Your task to perform on an android device: set default search engine in the chrome app Image 0: 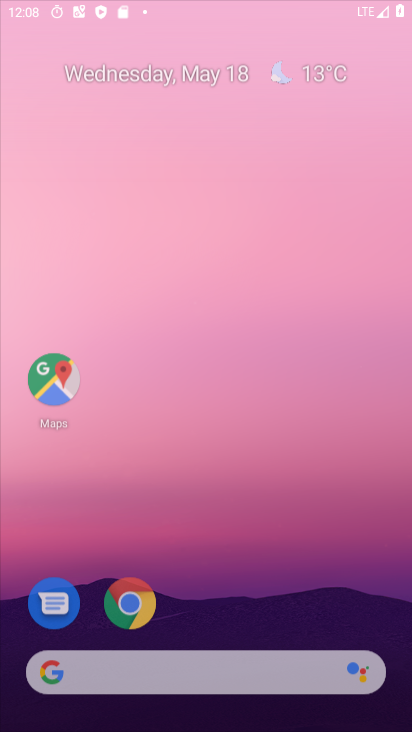
Step 0: press home button
Your task to perform on an android device: set default search engine in the chrome app Image 1: 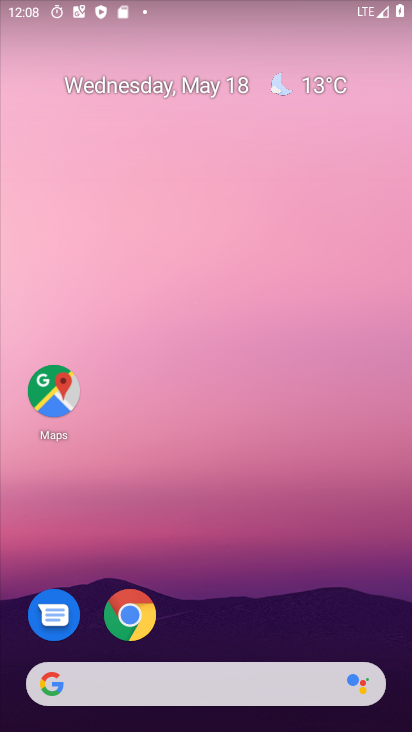
Step 1: click (140, 615)
Your task to perform on an android device: set default search engine in the chrome app Image 2: 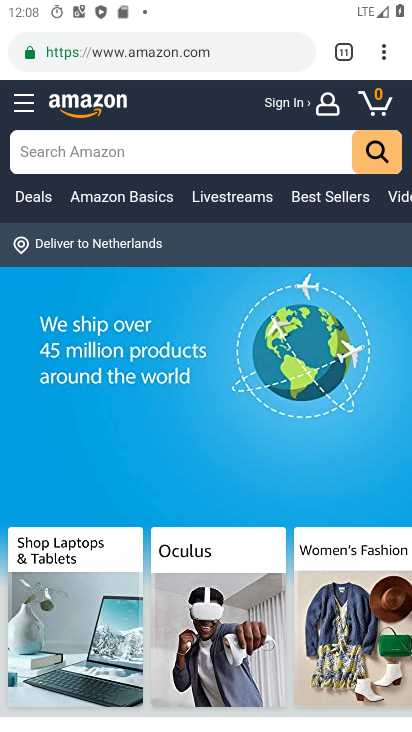
Step 2: drag from (383, 55) to (232, 626)
Your task to perform on an android device: set default search engine in the chrome app Image 3: 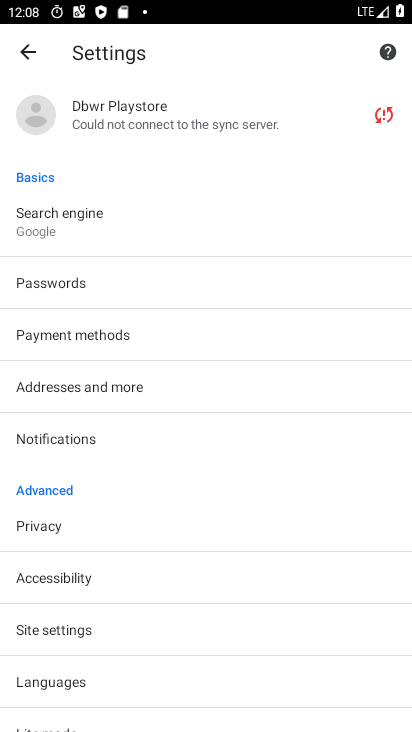
Step 3: click (73, 217)
Your task to perform on an android device: set default search engine in the chrome app Image 4: 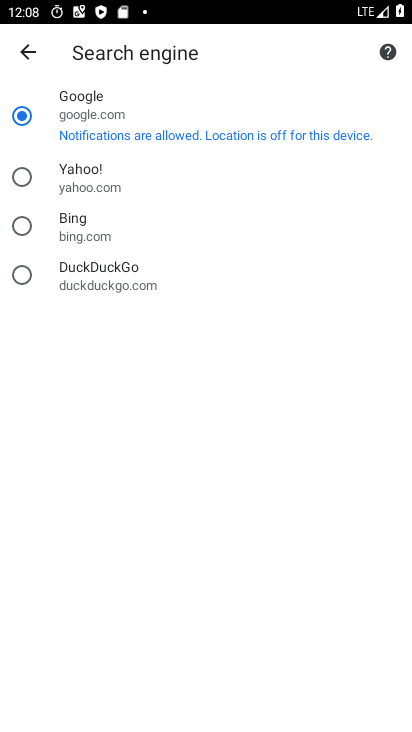
Step 4: click (23, 177)
Your task to perform on an android device: set default search engine in the chrome app Image 5: 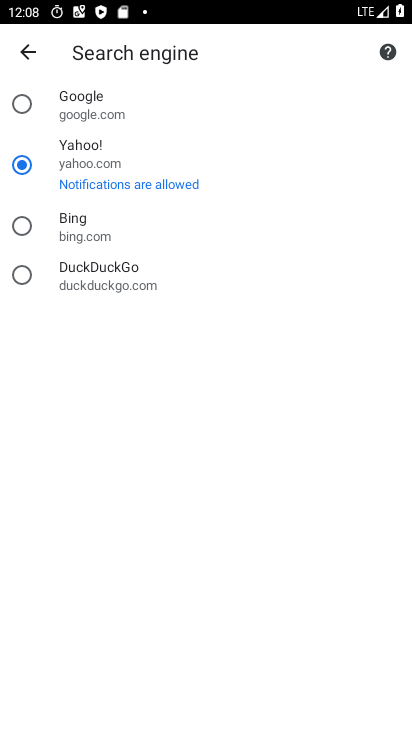
Step 5: task complete